Your task to perform on an android device: delete a single message in the gmail app Image 0: 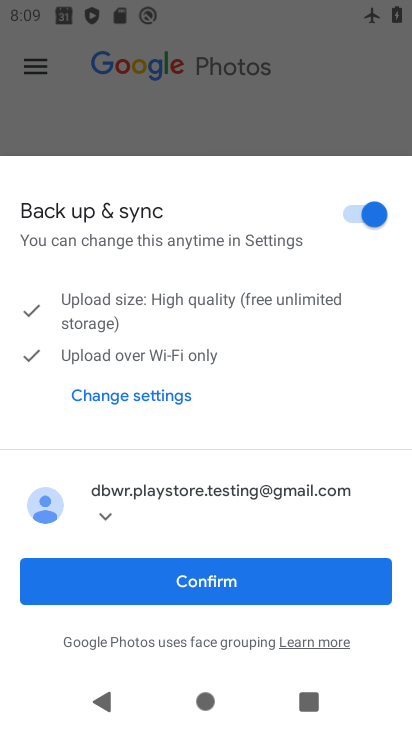
Step 0: press home button
Your task to perform on an android device: delete a single message in the gmail app Image 1: 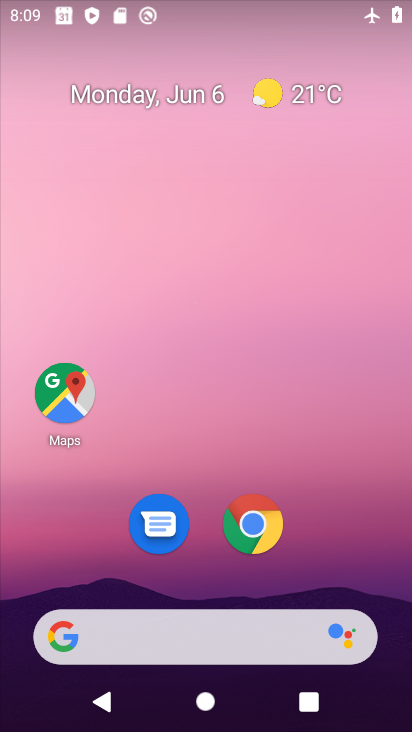
Step 1: drag from (184, 481) to (158, 22)
Your task to perform on an android device: delete a single message in the gmail app Image 2: 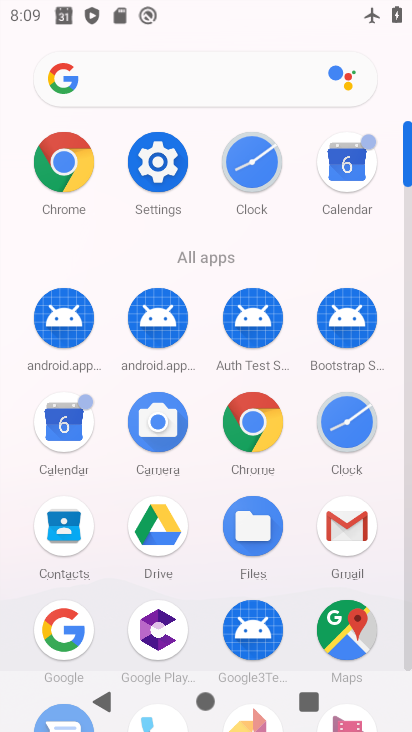
Step 2: click (351, 529)
Your task to perform on an android device: delete a single message in the gmail app Image 3: 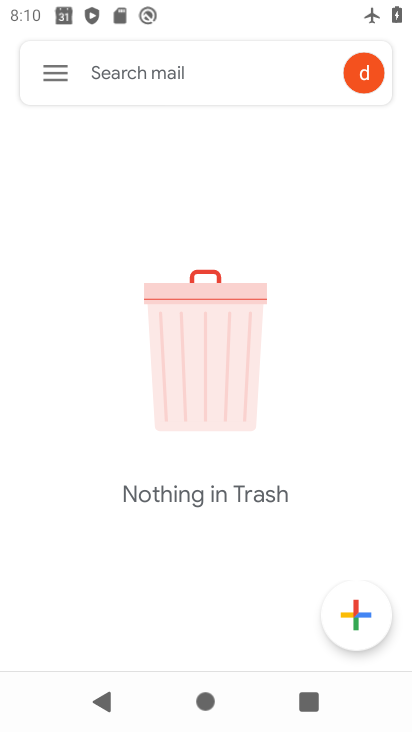
Step 3: click (57, 71)
Your task to perform on an android device: delete a single message in the gmail app Image 4: 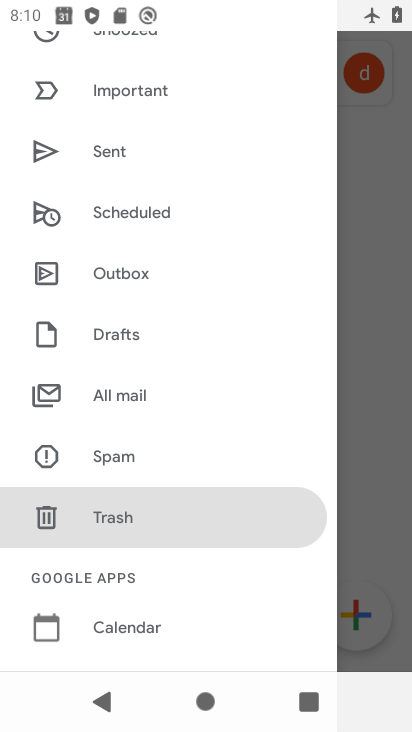
Step 4: click (151, 387)
Your task to perform on an android device: delete a single message in the gmail app Image 5: 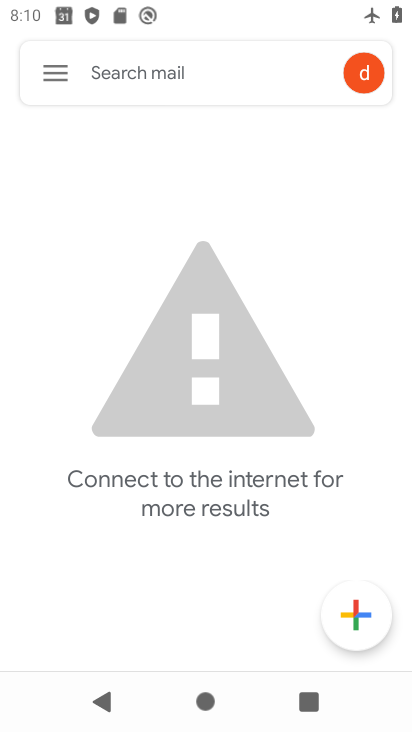
Step 5: task complete